Your task to perform on an android device: manage bookmarks in the chrome app Image 0: 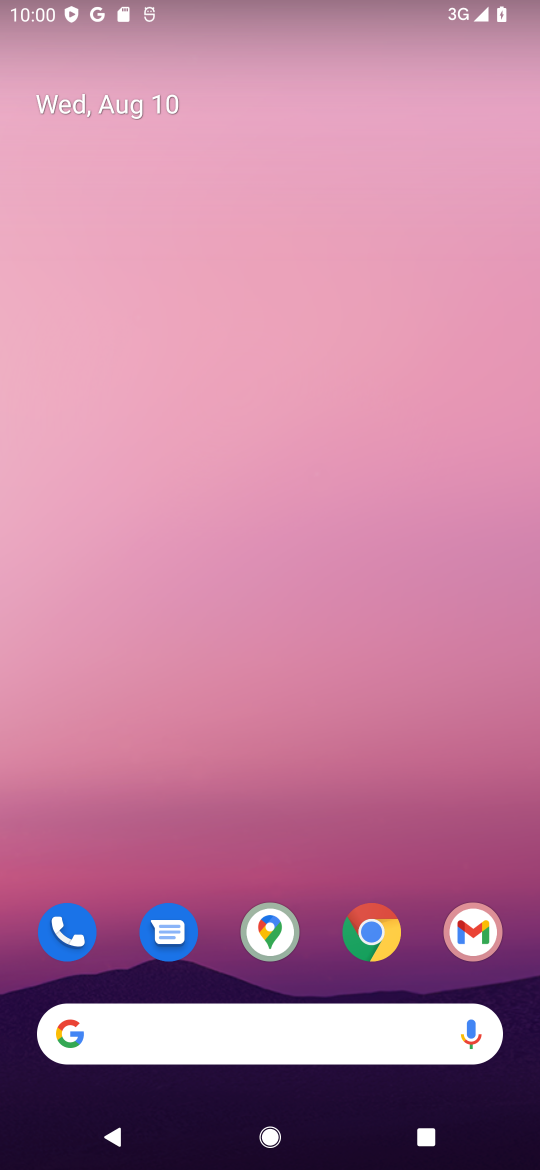
Step 0: click (379, 930)
Your task to perform on an android device: manage bookmarks in the chrome app Image 1: 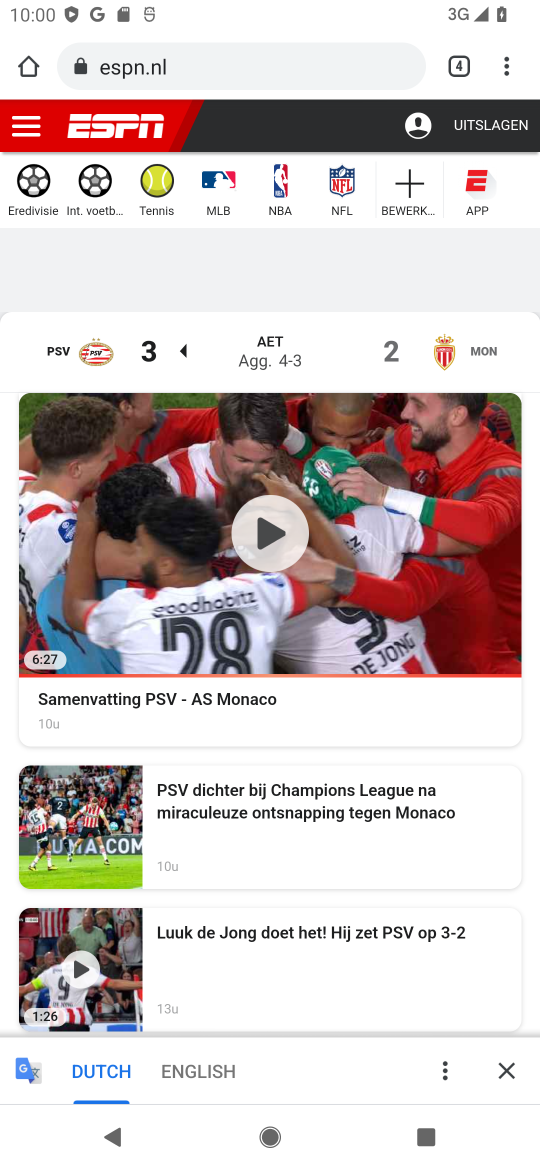
Step 1: click (493, 59)
Your task to perform on an android device: manage bookmarks in the chrome app Image 2: 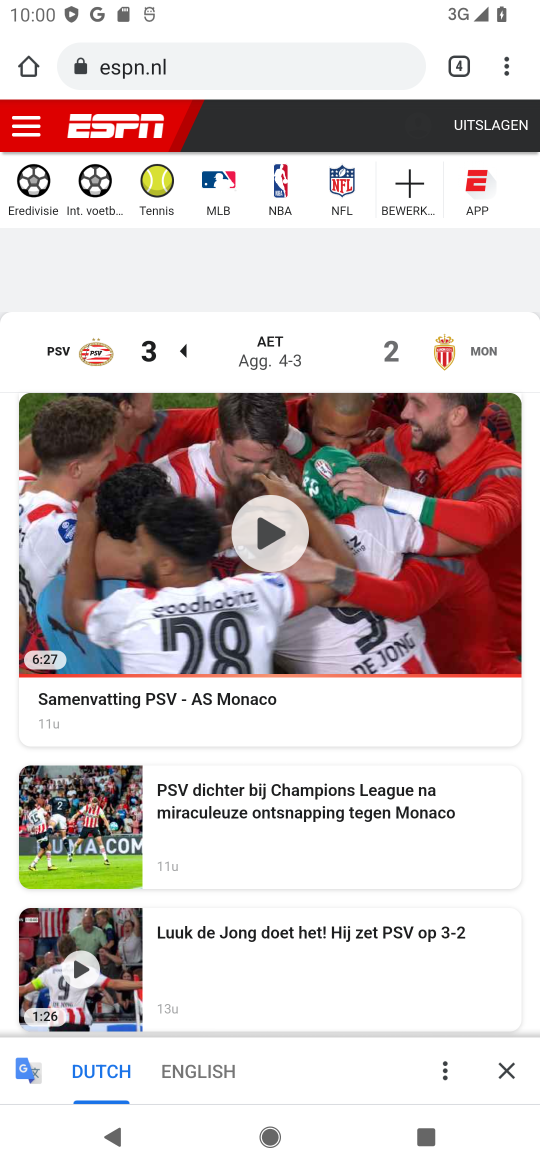
Step 2: click (485, 58)
Your task to perform on an android device: manage bookmarks in the chrome app Image 3: 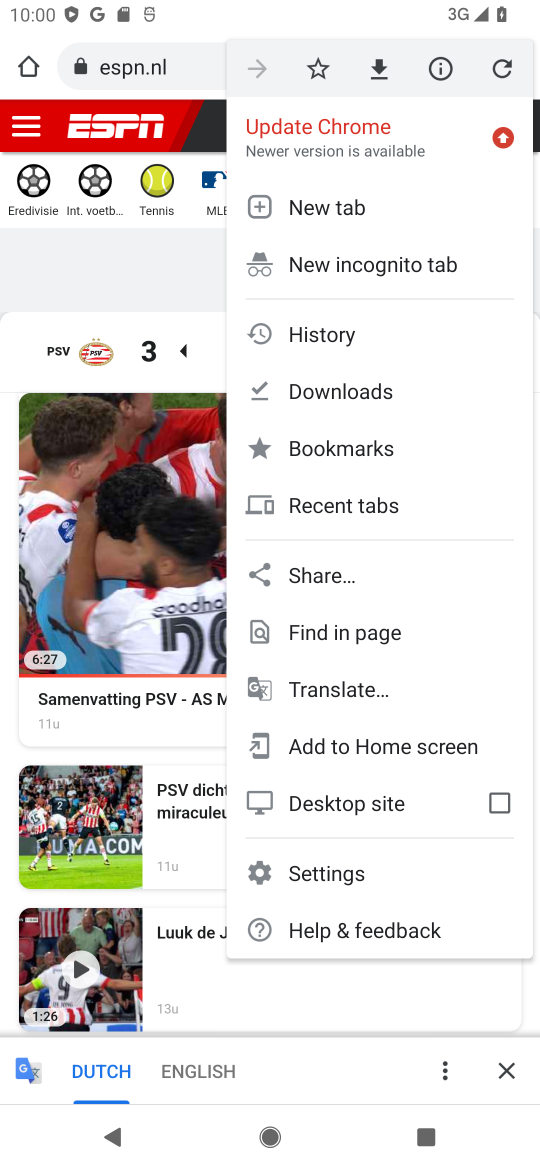
Step 3: click (343, 439)
Your task to perform on an android device: manage bookmarks in the chrome app Image 4: 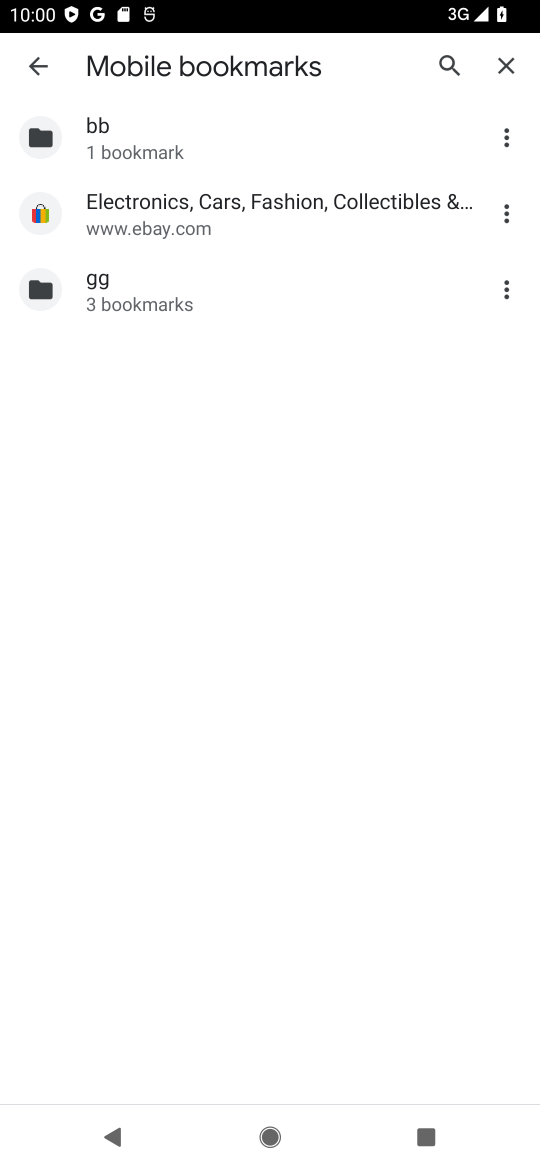
Step 4: click (505, 131)
Your task to perform on an android device: manage bookmarks in the chrome app Image 5: 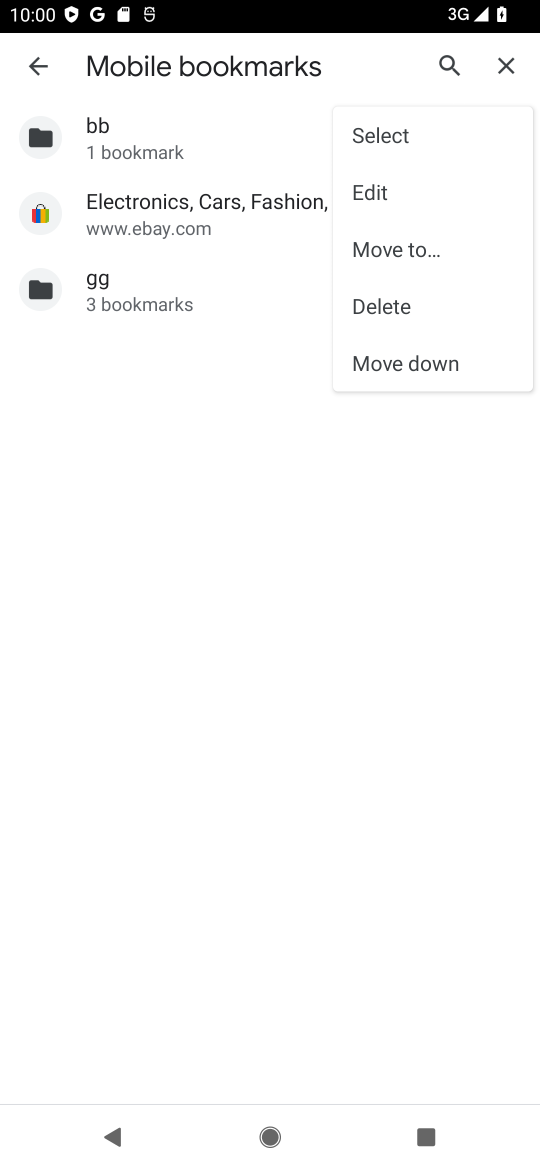
Step 5: click (380, 184)
Your task to perform on an android device: manage bookmarks in the chrome app Image 6: 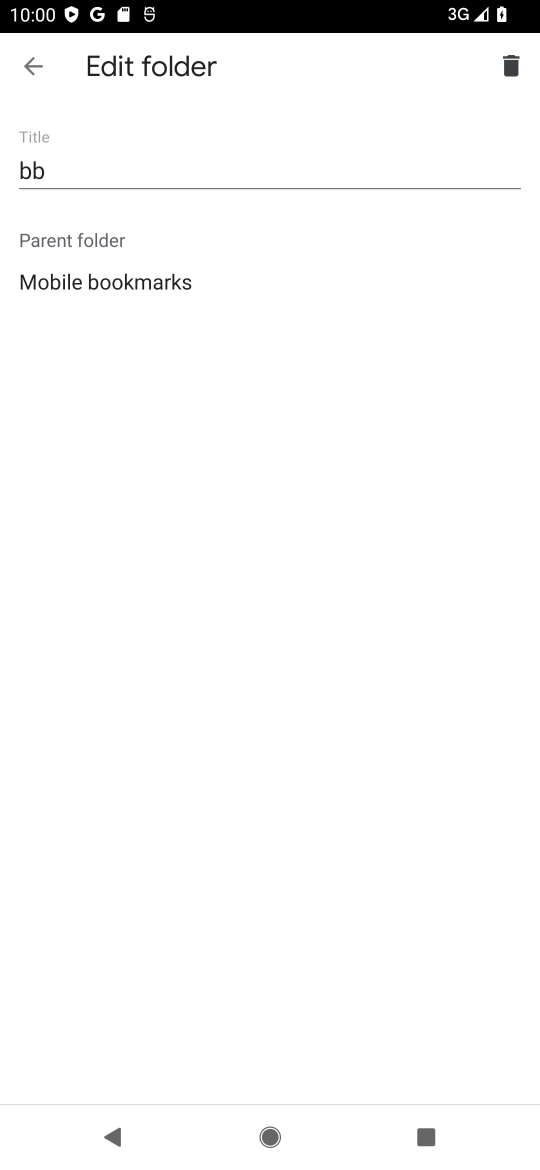
Step 6: task complete